Your task to perform on an android device: turn on improve location accuracy Image 0: 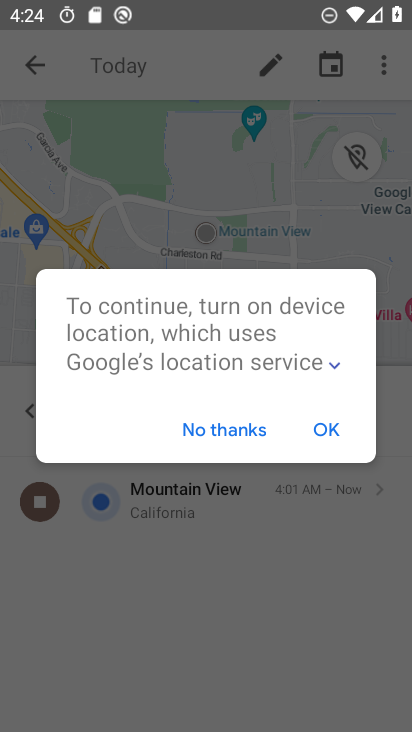
Step 0: press home button
Your task to perform on an android device: turn on improve location accuracy Image 1: 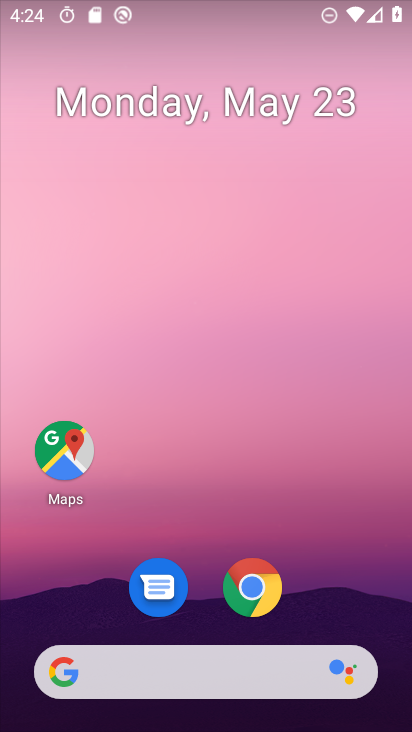
Step 1: drag from (202, 615) to (225, 116)
Your task to perform on an android device: turn on improve location accuracy Image 2: 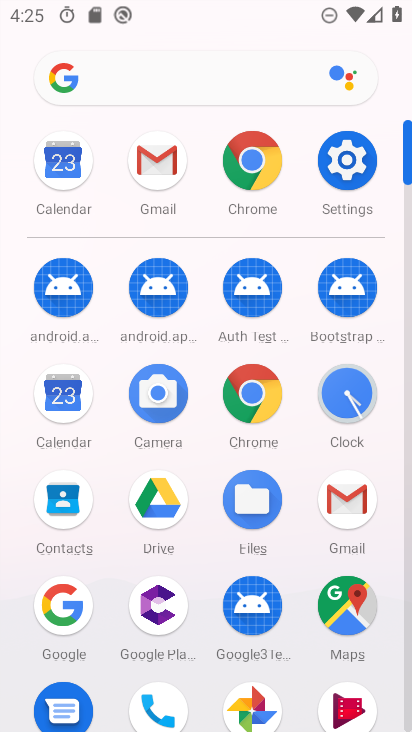
Step 2: click (358, 174)
Your task to perform on an android device: turn on improve location accuracy Image 3: 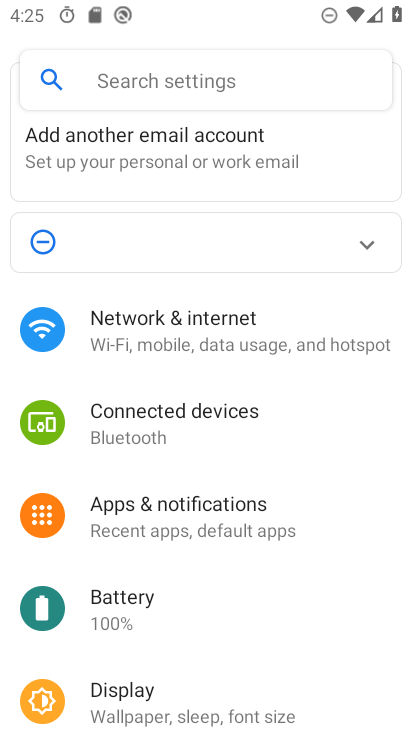
Step 3: drag from (212, 649) to (250, 197)
Your task to perform on an android device: turn on improve location accuracy Image 4: 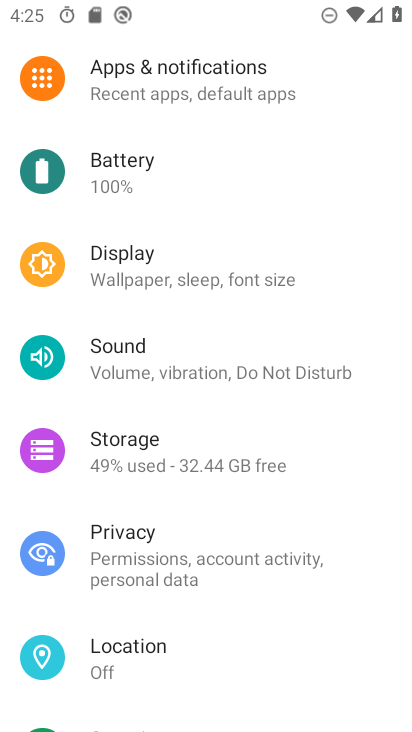
Step 4: click (182, 659)
Your task to perform on an android device: turn on improve location accuracy Image 5: 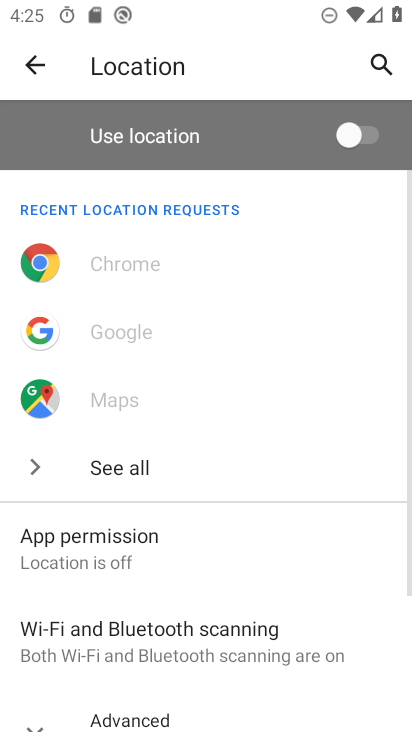
Step 5: drag from (165, 614) to (203, 258)
Your task to perform on an android device: turn on improve location accuracy Image 6: 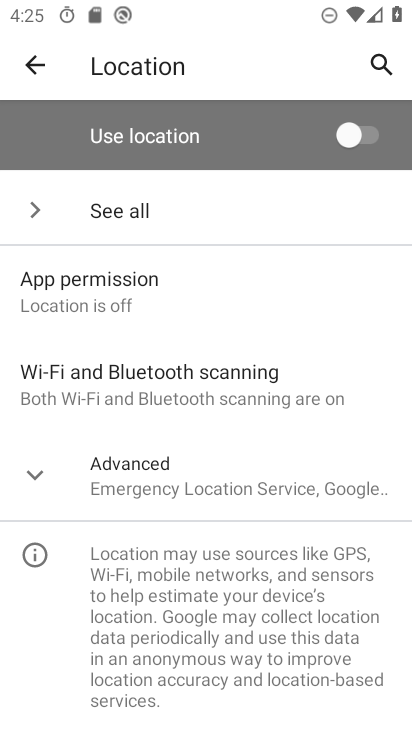
Step 6: click (184, 487)
Your task to perform on an android device: turn on improve location accuracy Image 7: 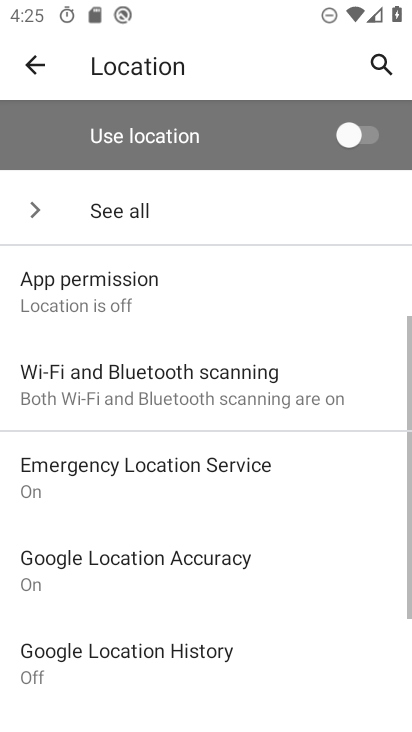
Step 7: drag from (191, 562) to (195, 454)
Your task to perform on an android device: turn on improve location accuracy Image 8: 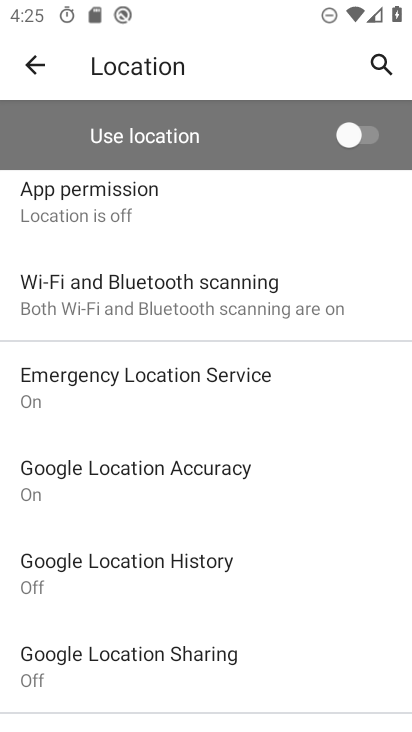
Step 8: click (180, 490)
Your task to perform on an android device: turn on improve location accuracy Image 9: 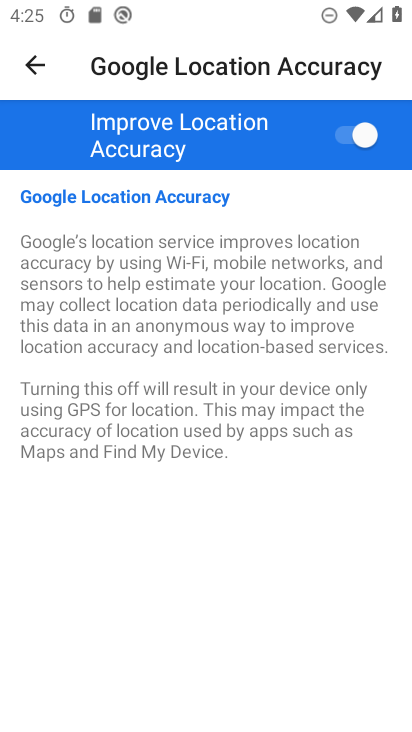
Step 9: task complete